Your task to perform on an android device: move an email to a new category in the gmail app Image 0: 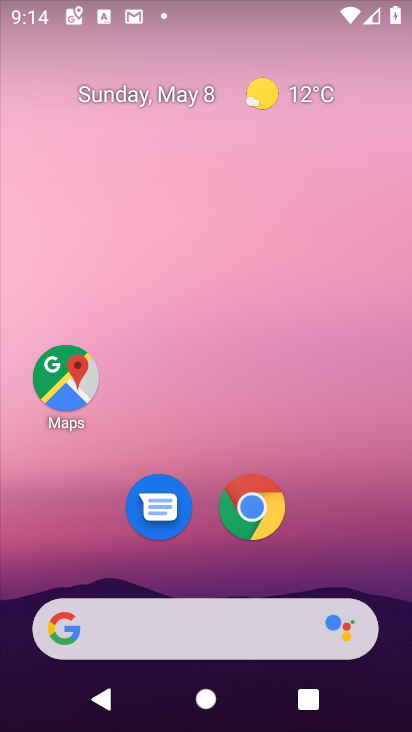
Step 0: drag from (287, 695) to (240, 326)
Your task to perform on an android device: move an email to a new category in the gmail app Image 1: 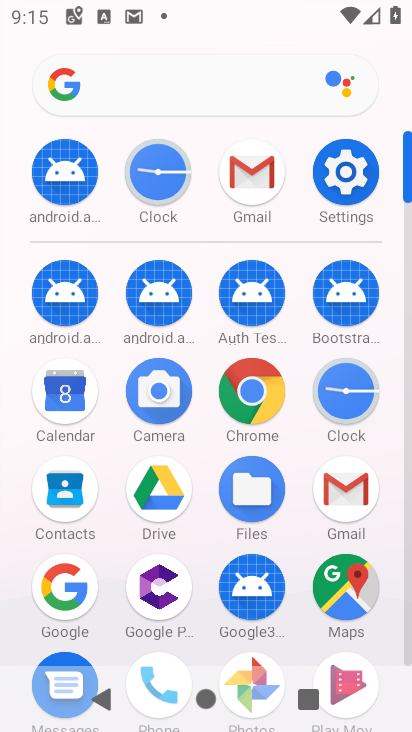
Step 1: click (345, 502)
Your task to perform on an android device: move an email to a new category in the gmail app Image 2: 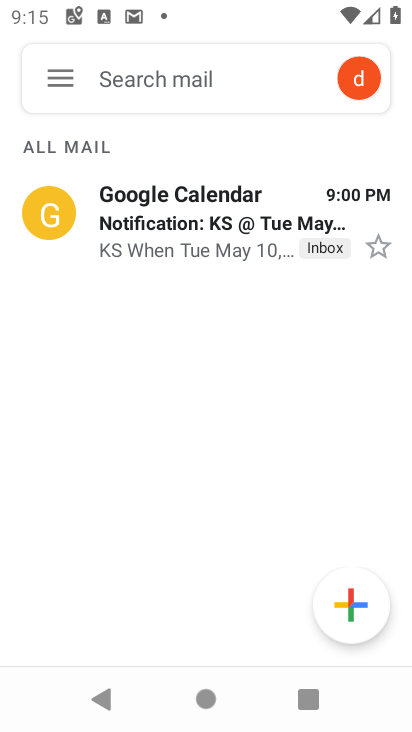
Step 2: click (263, 222)
Your task to perform on an android device: move an email to a new category in the gmail app Image 3: 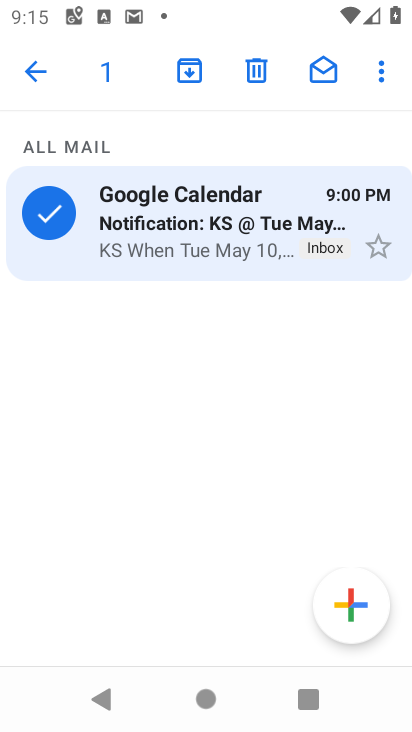
Step 3: click (371, 72)
Your task to perform on an android device: move an email to a new category in the gmail app Image 4: 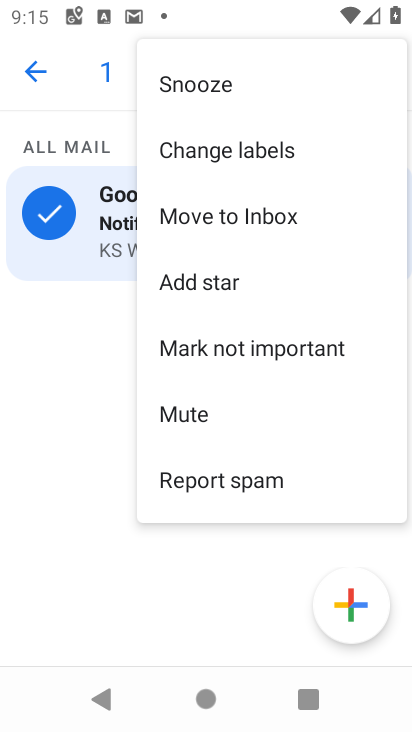
Step 4: click (248, 217)
Your task to perform on an android device: move an email to a new category in the gmail app Image 5: 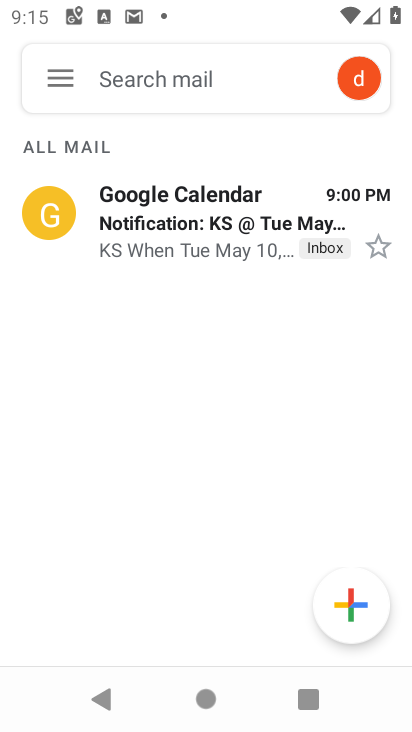
Step 5: task complete